Your task to perform on an android device: Open Chrome and go to settings Image 0: 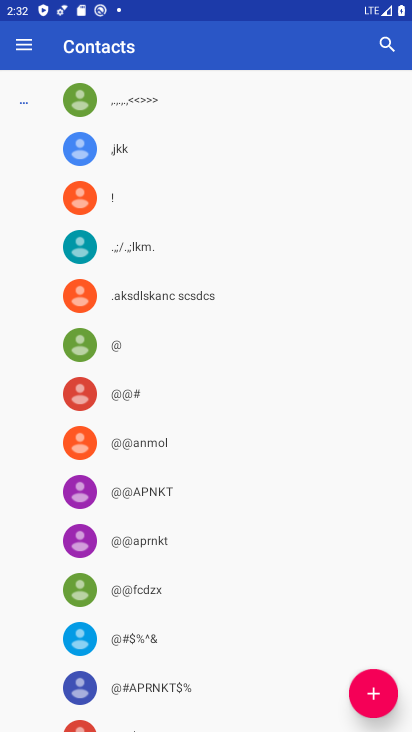
Step 0: press home button
Your task to perform on an android device: Open Chrome and go to settings Image 1: 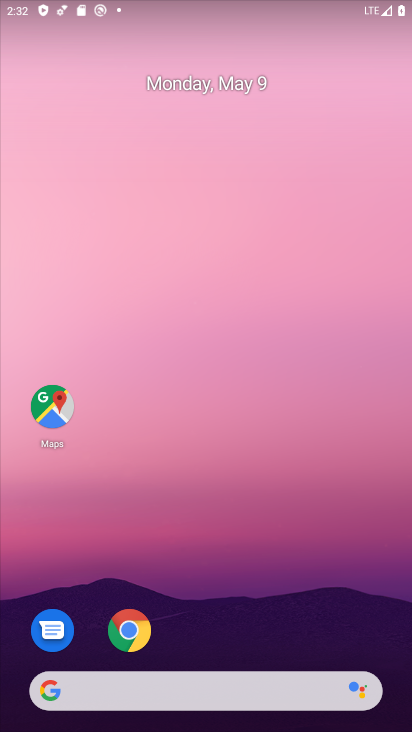
Step 1: click (130, 639)
Your task to perform on an android device: Open Chrome and go to settings Image 2: 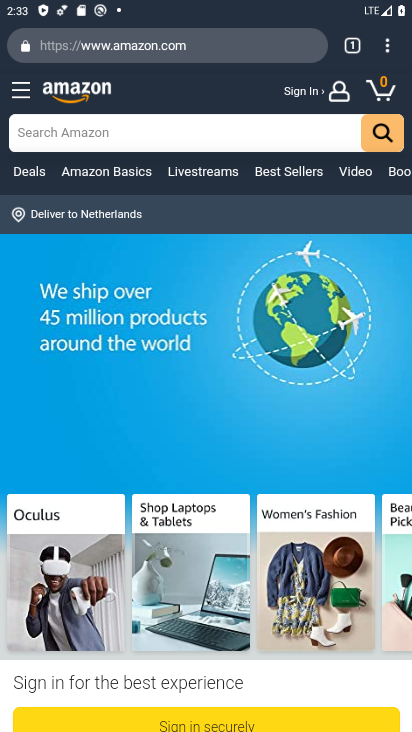
Step 2: task complete